Your task to perform on an android device: Go to accessibility settings Image 0: 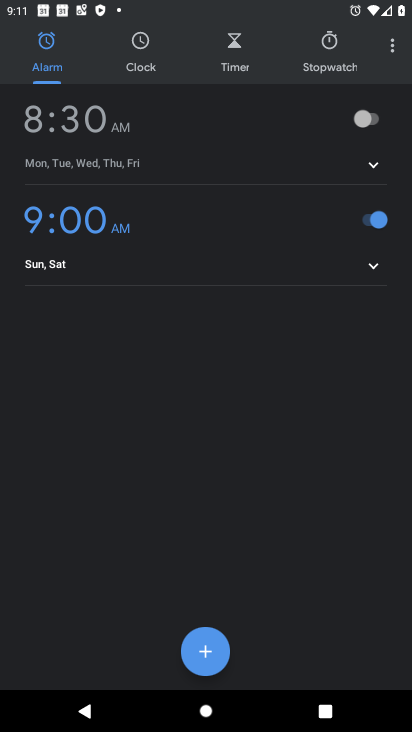
Step 0: press home button
Your task to perform on an android device: Go to accessibility settings Image 1: 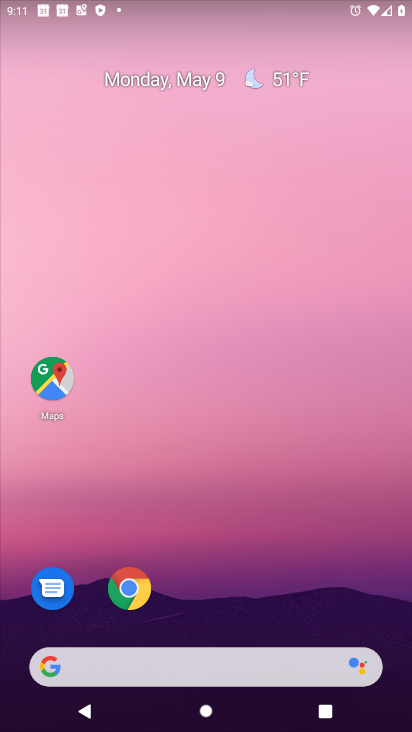
Step 1: drag from (319, 584) to (273, 36)
Your task to perform on an android device: Go to accessibility settings Image 2: 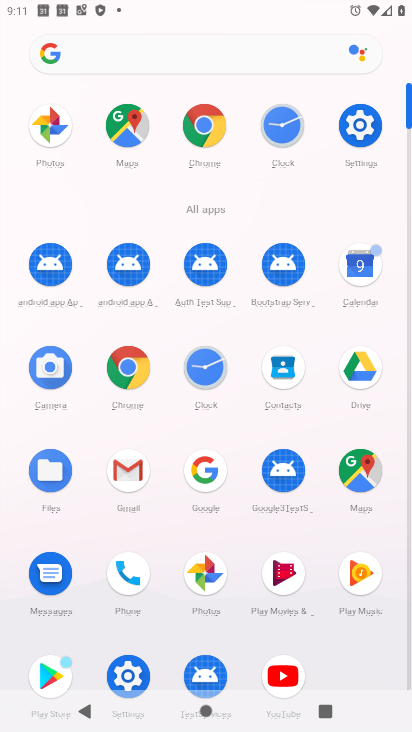
Step 2: click (358, 122)
Your task to perform on an android device: Go to accessibility settings Image 3: 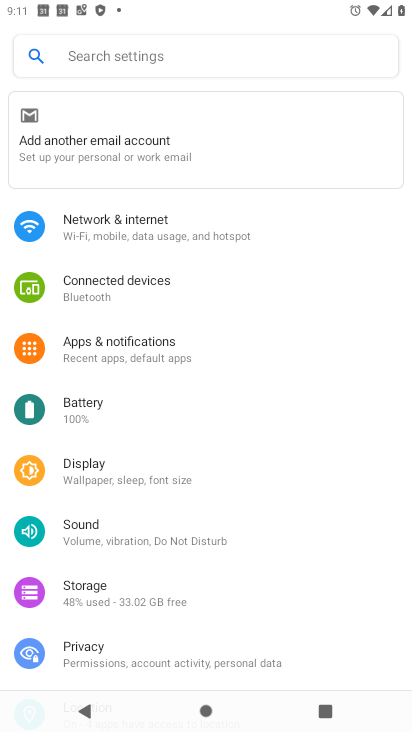
Step 3: drag from (227, 637) to (185, 21)
Your task to perform on an android device: Go to accessibility settings Image 4: 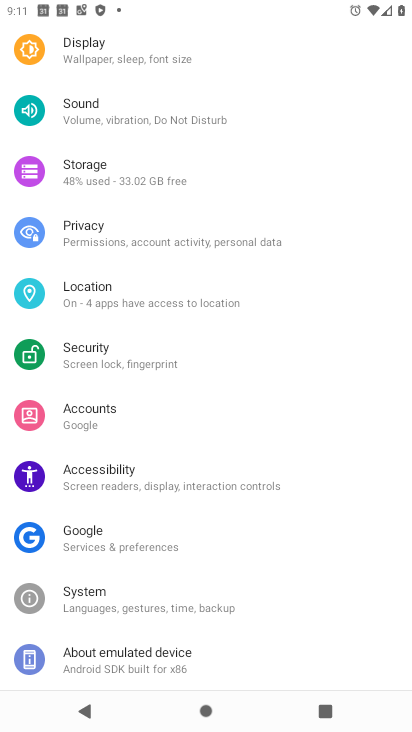
Step 4: click (92, 460)
Your task to perform on an android device: Go to accessibility settings Image 5: 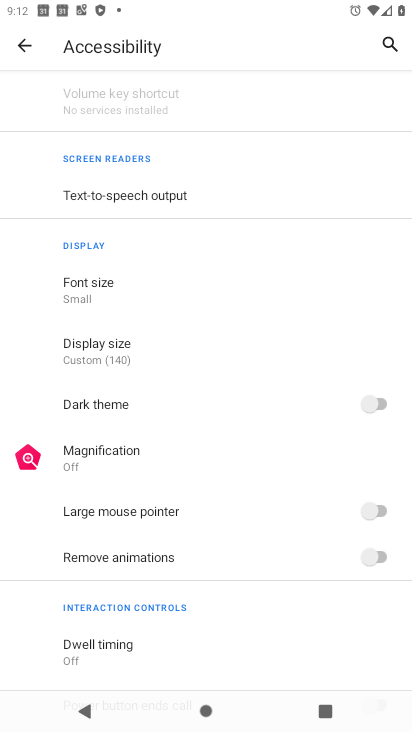
Step 5: task complete